Your task to perform on an android device: check out phone information Image 0: 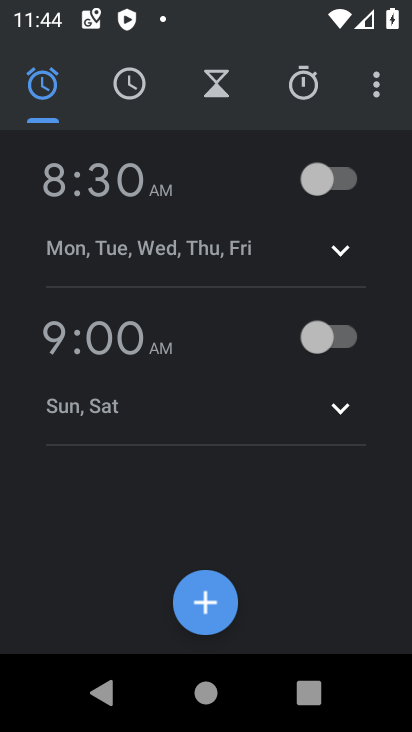
Step 0: press back button
Your task to perform on an android device: check out phone information Image 1: 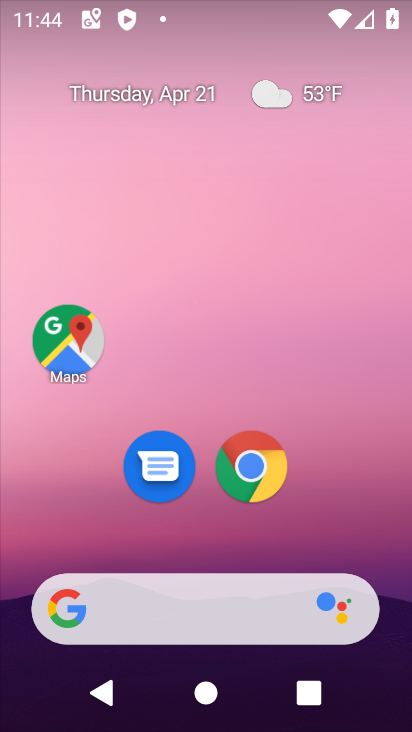
Step 1: drag from (341, 521) to (282, 41)
Your task to perform on an android device: check out phone information Image 2: 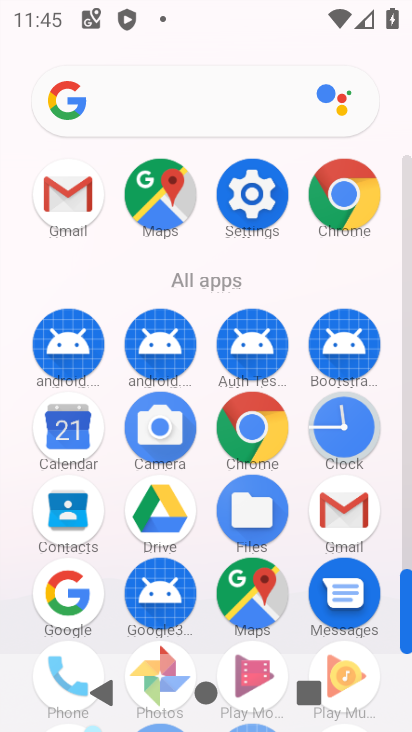
Step 2: click (251, 190)
Your task to perform on an android device: check out phone information Image 3: 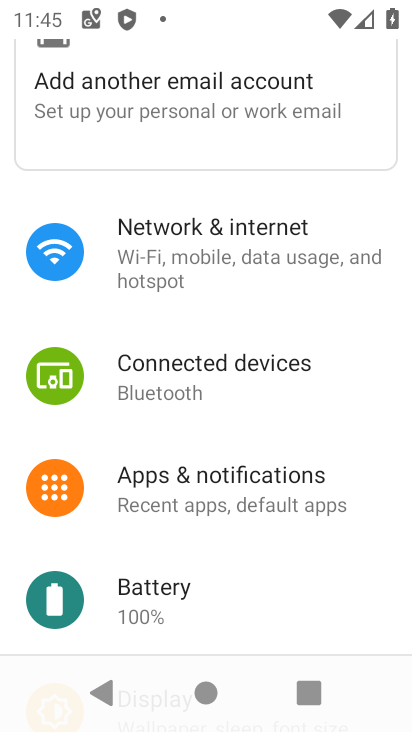
Step 3: drag from (364, 509) to (352, 185)
Your task to perform on an android device: check out phone information Image 4: 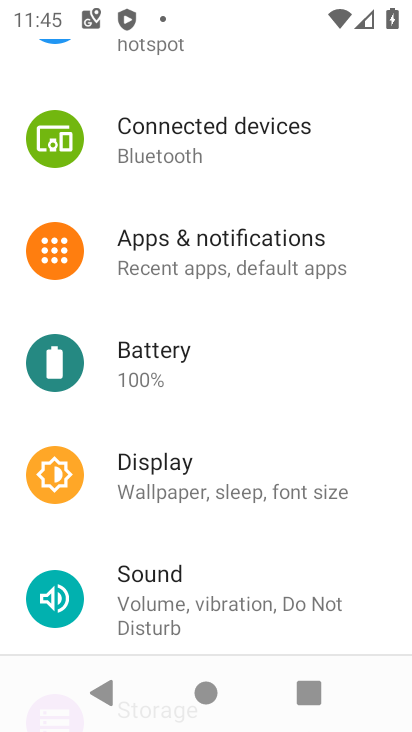
Step 4: drag from (331, 526) to (331, 153)
Your task to perform on an android device: check out phone information Image 5: 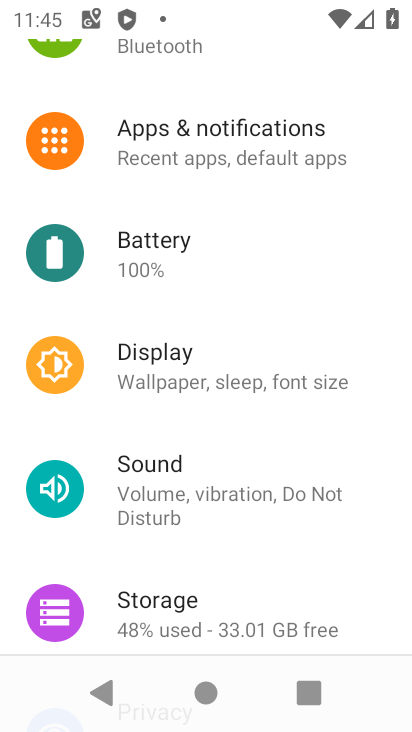
Step 5: drag from (299, 475) to (317, 144)
Your task to perform on an android device: check out phone information Image 6: 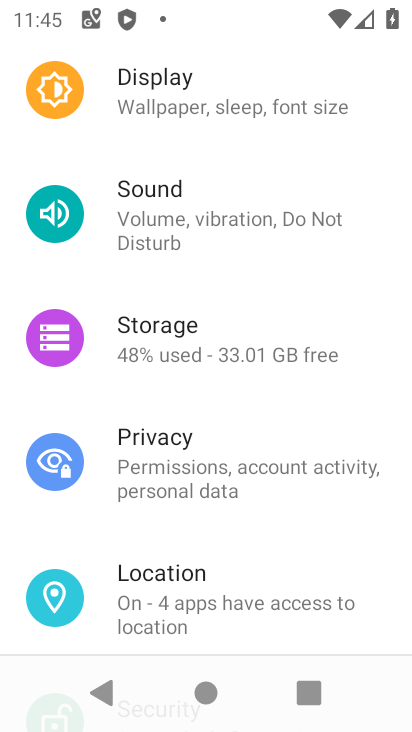
Step 6: drag from (283, 510) to (297, 163)
Your task to perform on an android device: check out phone information Image 7: 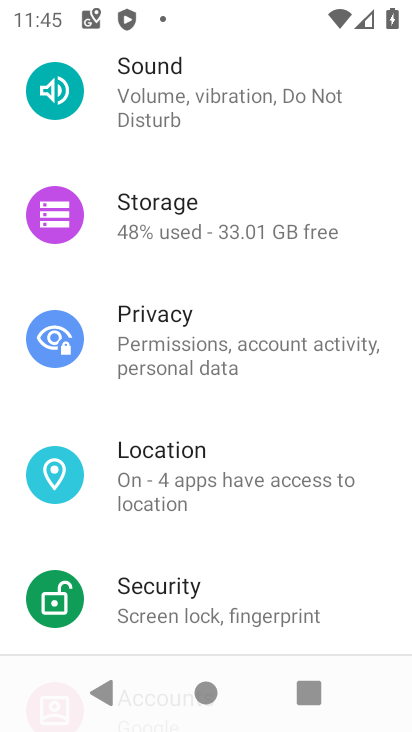
Step 7: drag from (284, 581) to (288, 144)
Your task to perform on an android device: check out phone information Image 8: 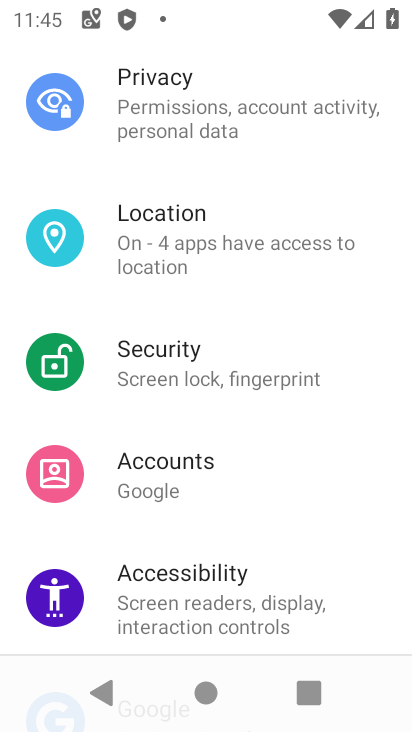
Step 8: drag from (249, 561) to (255, 147)
Your task to perform on an android device: check out phone information Image 9: 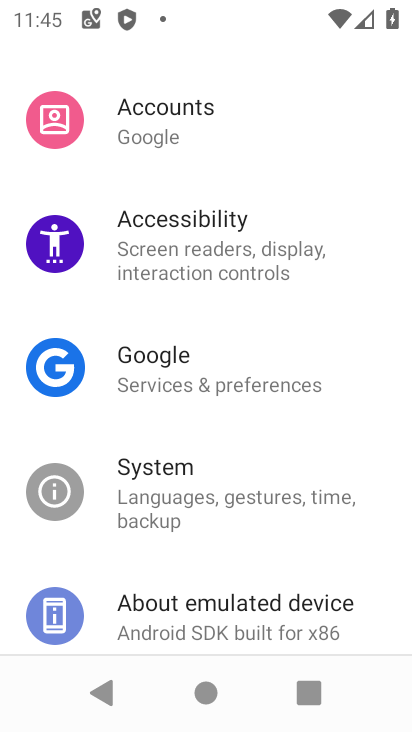
Step 9: drag from (340, 595) to (311, 149)
Your task to perform on an android device: check out phone information Image 10: 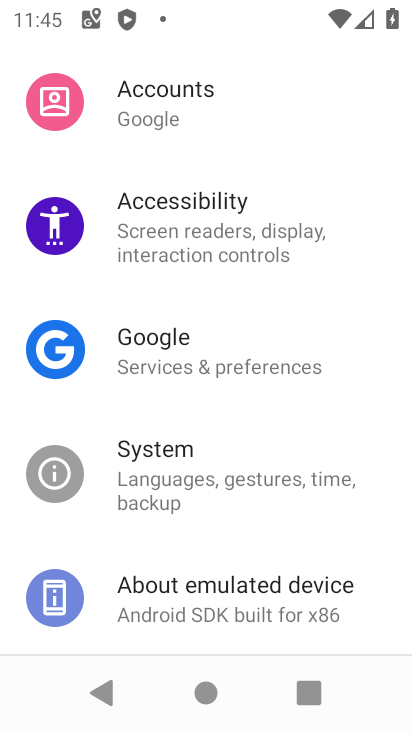
Step 10: click (218, 565)
Your task to perform on an android device: check out phone information Image 11: 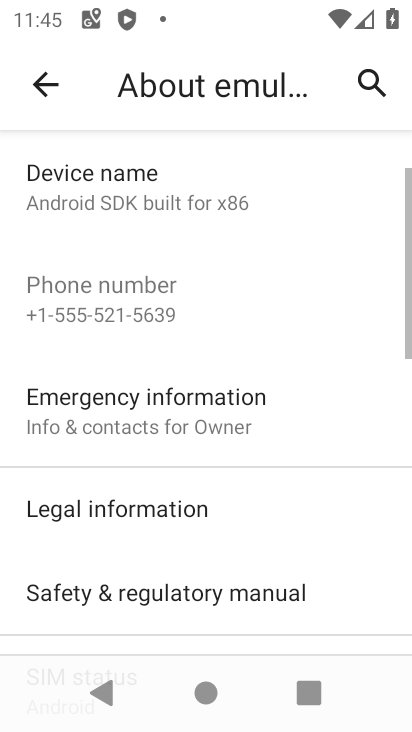
Step 11: task complete